Your task to perform on an android device: Open internet settings Image 0: 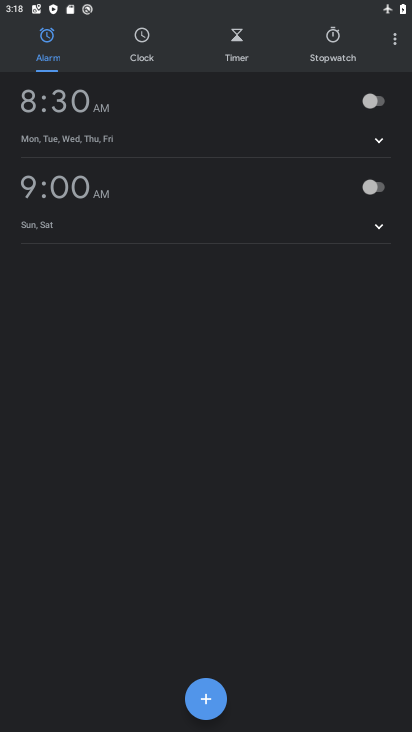
Step 0: press home button
Your task to perform on an android device: Open internet settings Image 1: 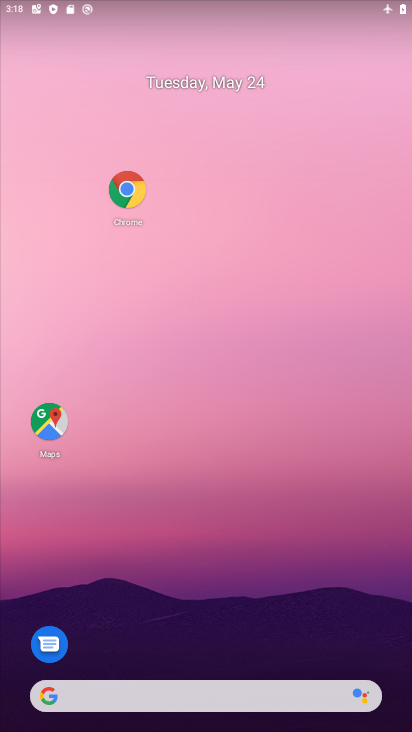
Step 1: drag from (263, 570) to (342, 147)
Your task to perform on an android device: Open internet settings Image 2: 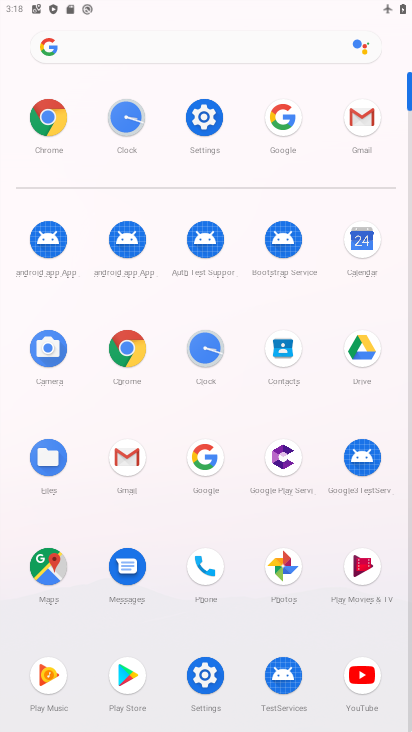
Step 2: click (192, 119)
Your task to perform on an android device: Open internet settings Image 3: 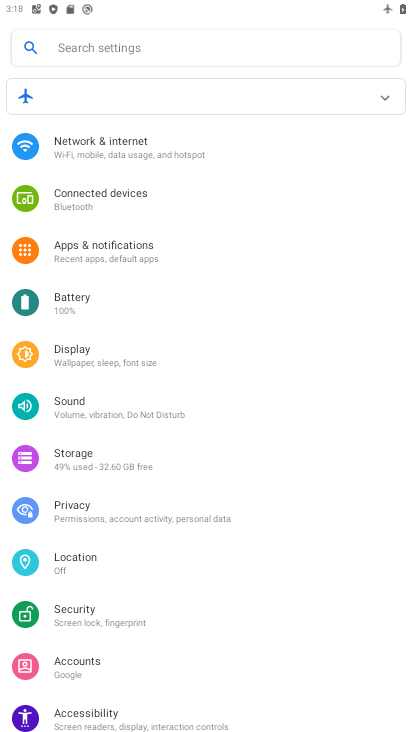
Step 3: click (150, 153)
Your task to perform on an android device: Open internet settings Image 4: 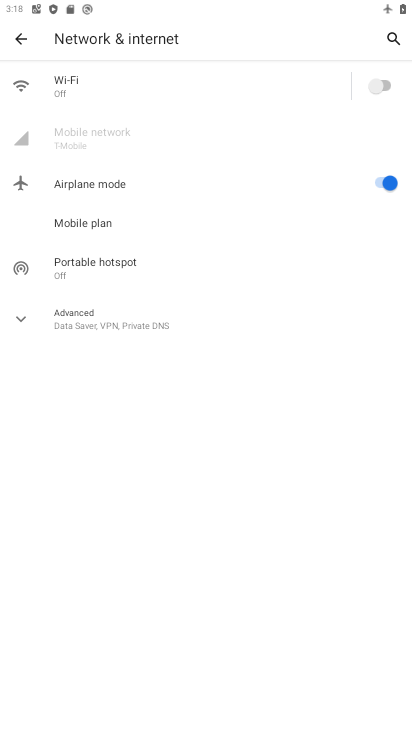
Step 4: click (170, 90)
Your task to perform on an android device: Open internet settings Image 5: 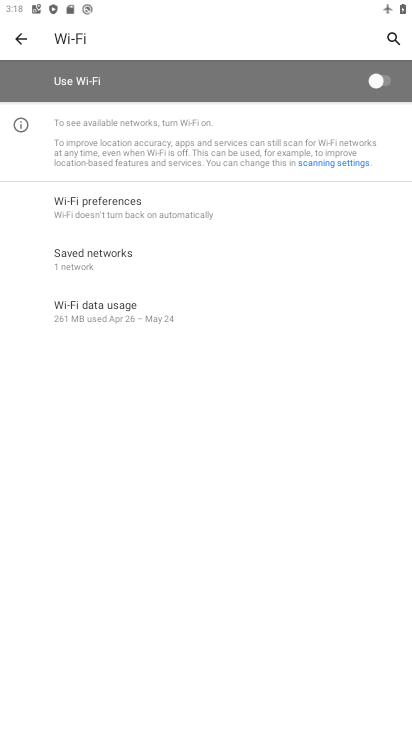
Step 5: click (385, 77)
Your task to perform on an android device: Open internet settings Image 6: 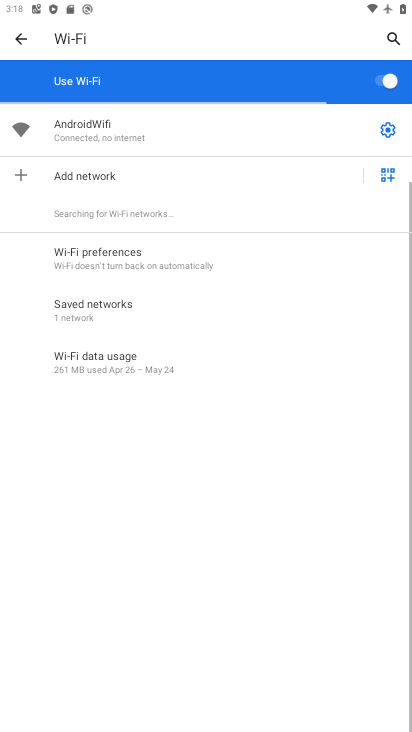
Step 6: click (192, 136)
Your task to perform on an android device: Open internet settings Image 7: 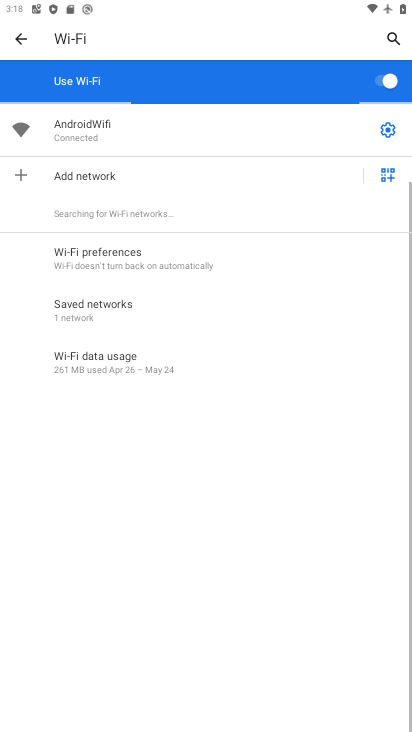
Step 7: click (144, 133)
Your task to perform on an android device: Open internet settings Image 8: 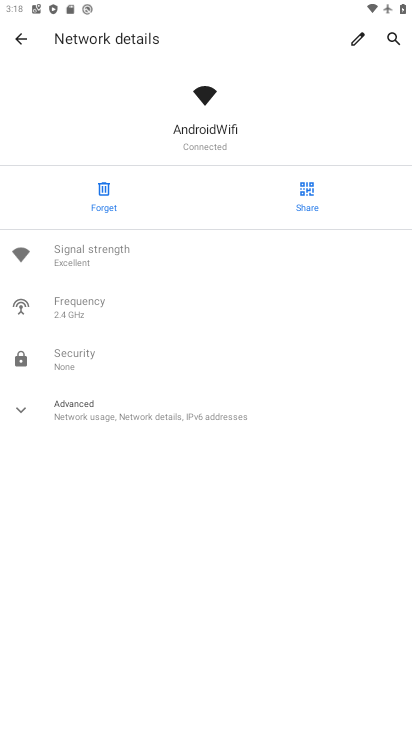
Step 8: task complete